Your task to perform on an android device: What is the news today? Image 0: 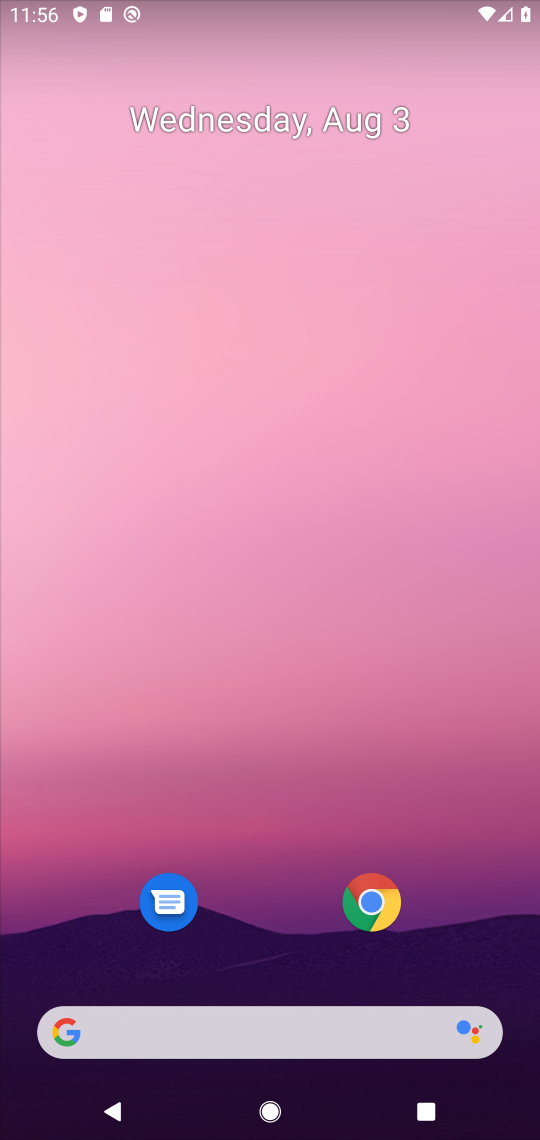
Step 0: drag from (8, 498) to (518, 554)
Your task to perform on an android device: What is the news today? Image 1: 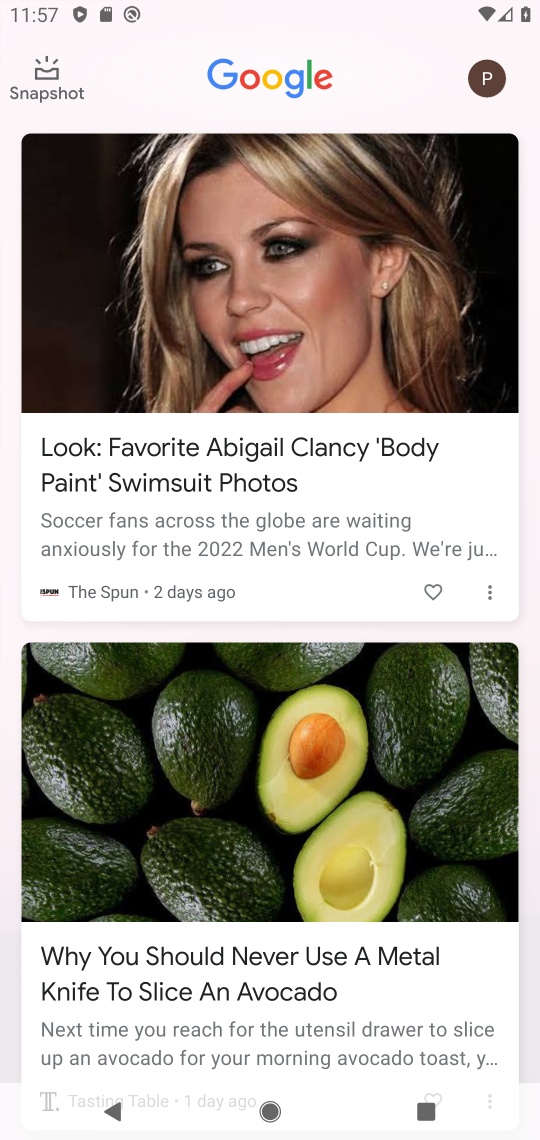
Step 1: task complete